Your task to perform on an android device: Open the phone app and click the voicemail tab. Image 0: 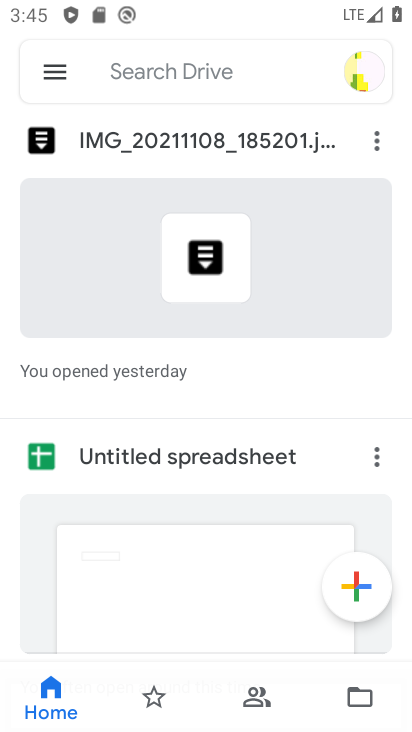
Step 0: press home button
Your task to perform on an android device: Open the phone app and click the voicemail tab. Image 1: 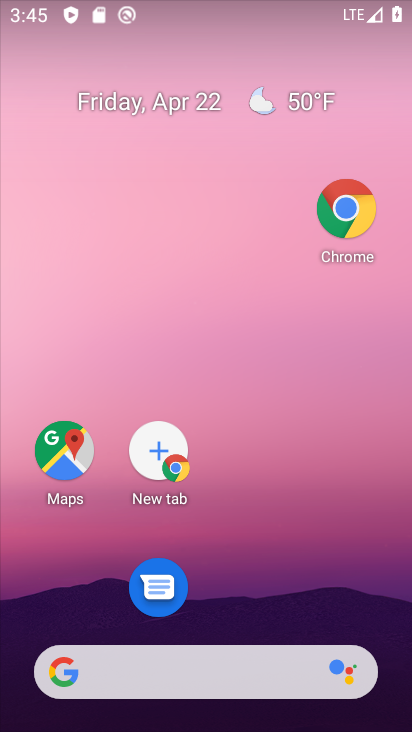
Step 1: drag from (229, 619) to (267, 207)
Your task to perform on an android device: Open the phone app and click the voicemail tab. Image 2: 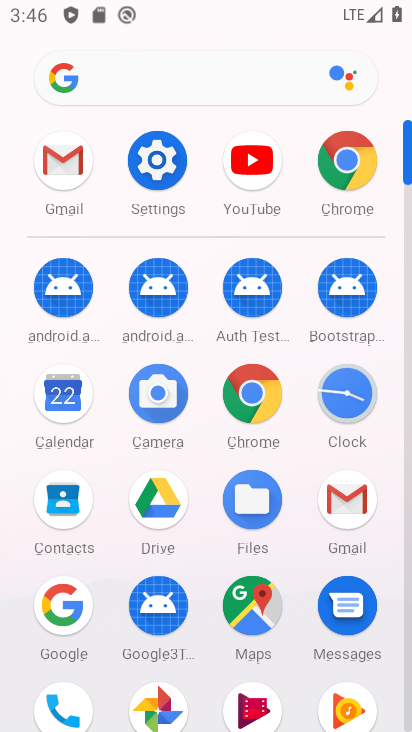
Step 2: click (63, 700)
Your task to perform on an android device: Open the phone app and click the voicemail tab. Image 3: 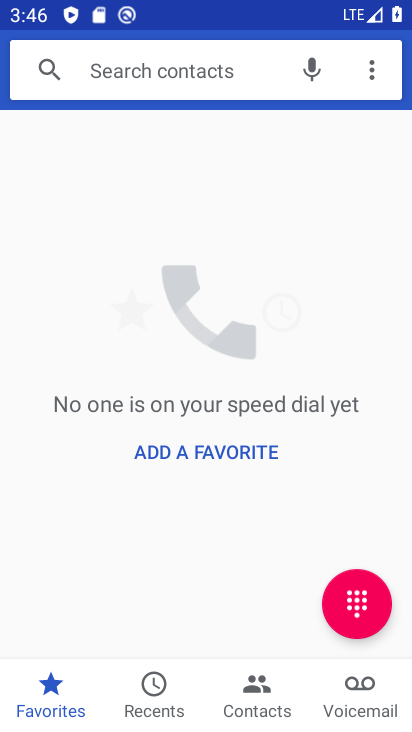
Step 3: click (375, 704)
Your task to perform on an android device: Open the phone app and click the voicemail tab. Image 4: 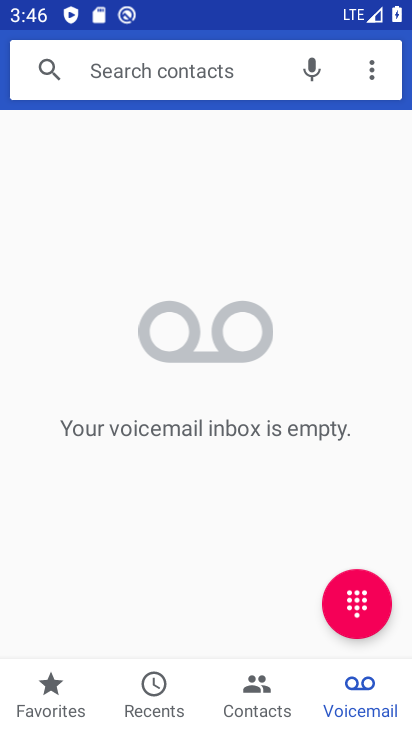
Step 4: task complete